Your task to perform on an android device: delete the emails in spam in the gmail app Image 0: 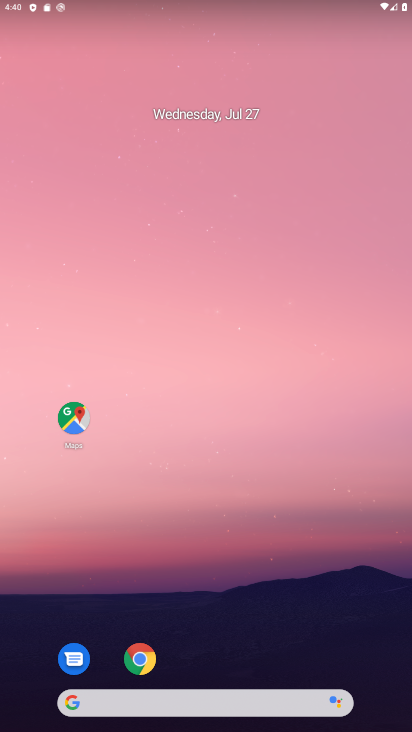
Step 0: press home button
Your task to perform on an android device: delete the emails in spam in the gmail app Image 1: 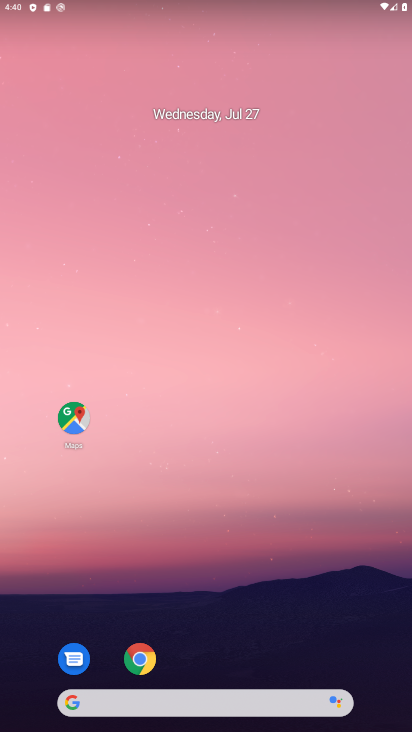
Step 1: drag from (185, 651) to (204, 209)
Your task to perform on an android device: delete the emails in spam in the gmail app Image 2: 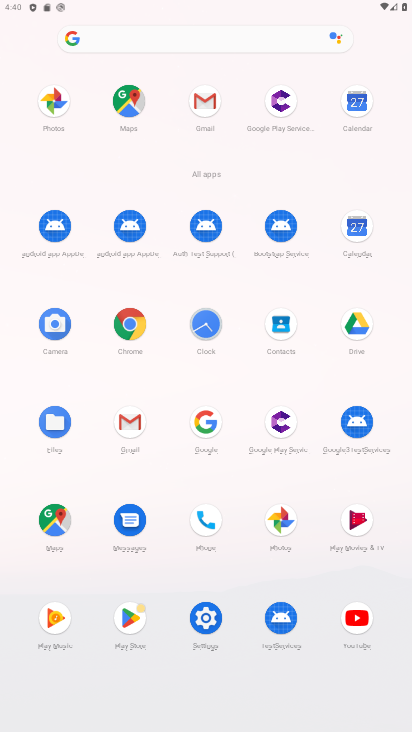
Step 2: click (122, 418)
Your task to perform on an android device: delete the emails in spam in the gmail app Image 3: 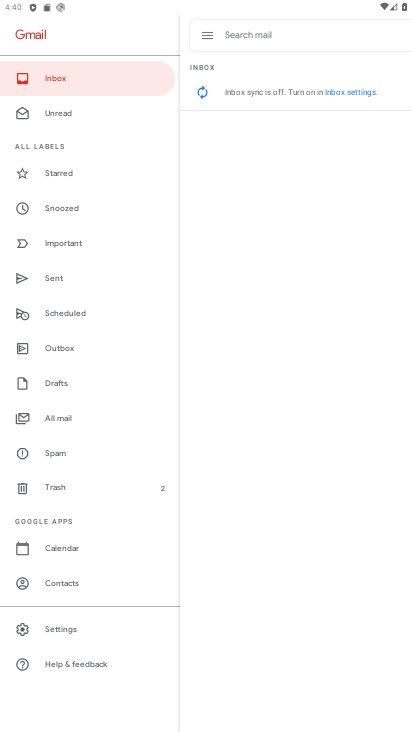
Step 3: task complete